Your task to perform on an android device: Open the stopwatch Image 0: 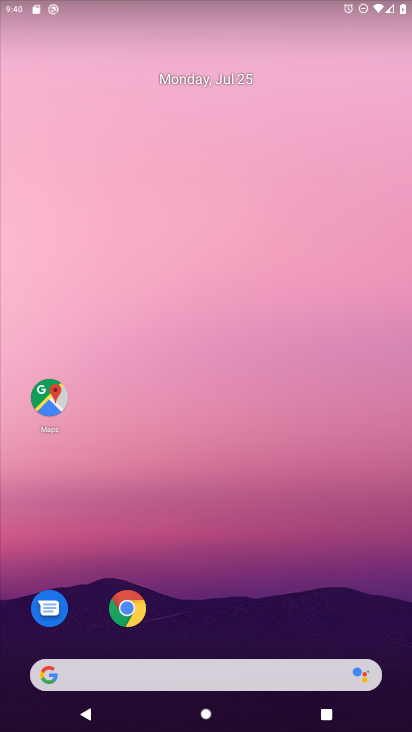
Step 0: drag from (256, 720) to (121, 4)
Your task to perform on an android device: Open the stopwatch Image 1: 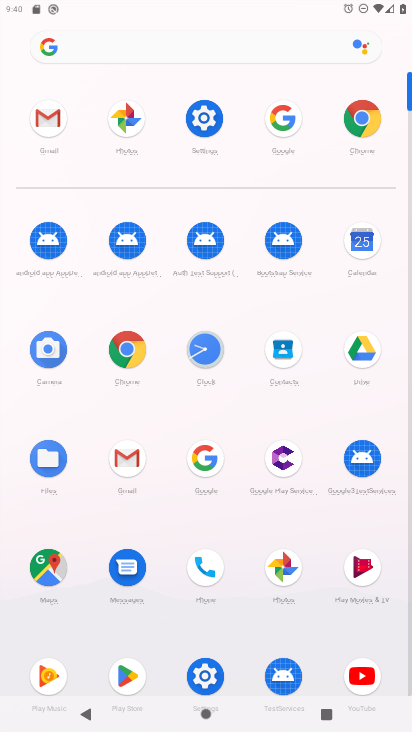
Step 1: click (193, 354)
Your task to perform on an android device: Open the stopwatch Image 2: 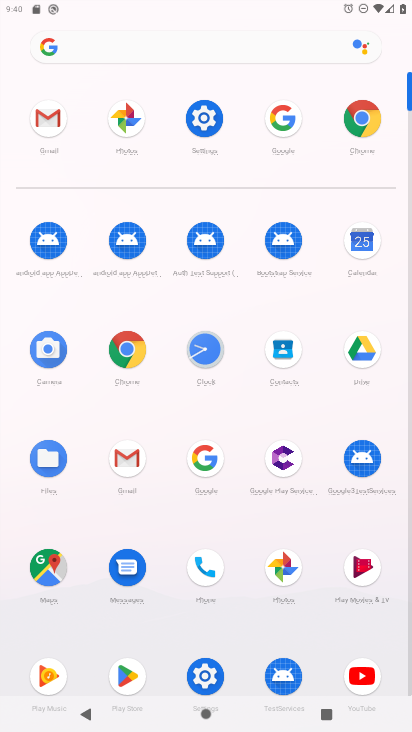
Step 2: click (193, 354)
Your task to perform on an android device: Open the stopwatch Image 3: 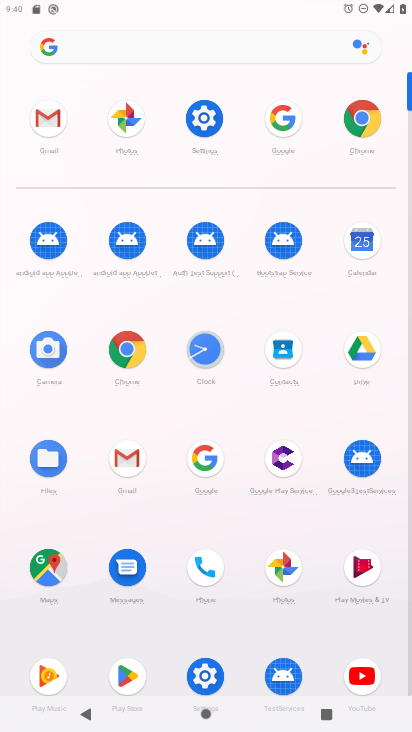
Step 3: click (193, 354)
Your task to perform on an android device: Open the stopwatch Image 4: 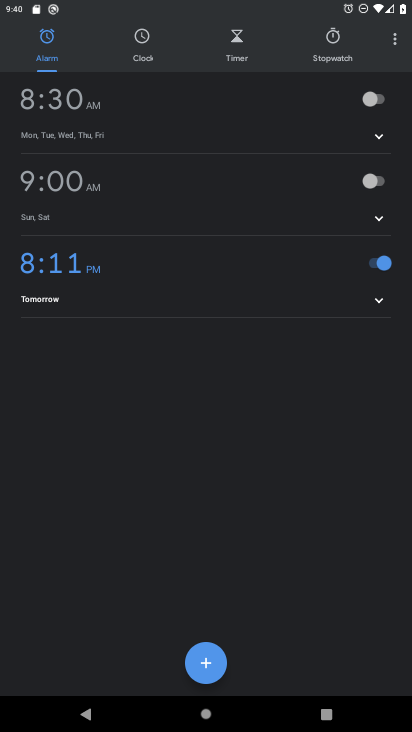
Step 4: click (327, 41)
Your task to perform on an android device: Open the stopwatch Image 5: 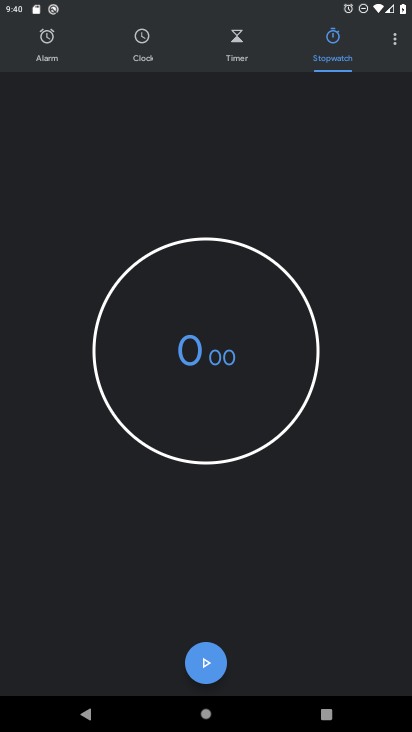
Step 5: task complete